Your task to perform on an android device: turn on data saver in the chrome app Image 0: 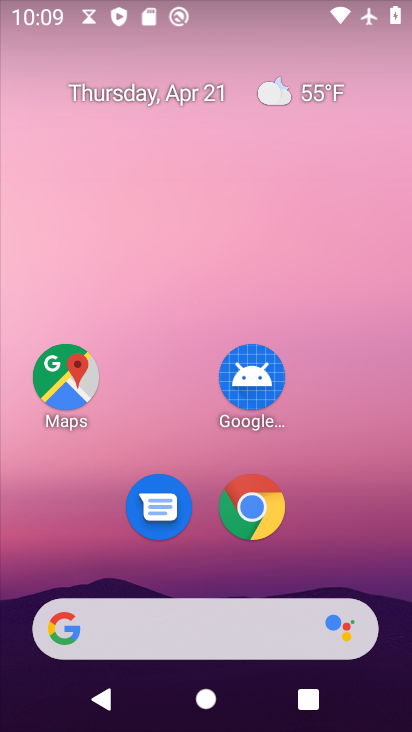
Step 0: drag from (299, 553) to (312, 269)
Your task to perform on an android device: turn on data saver in the chrome app Image 1: 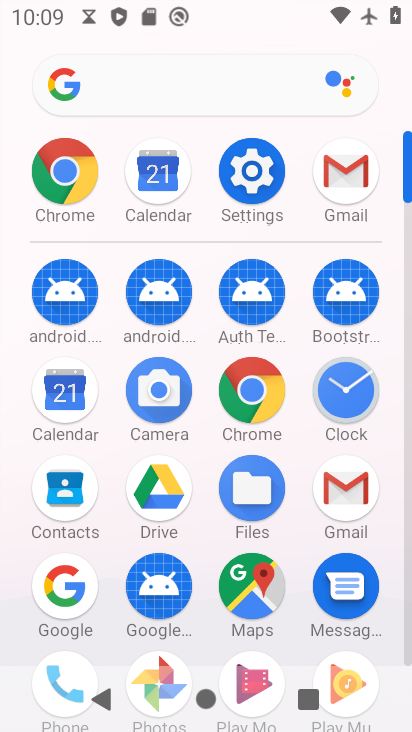
Step 1: click (254, 391)
Your task to perform on an android device: turn on data saver in the chrome app Image 2: 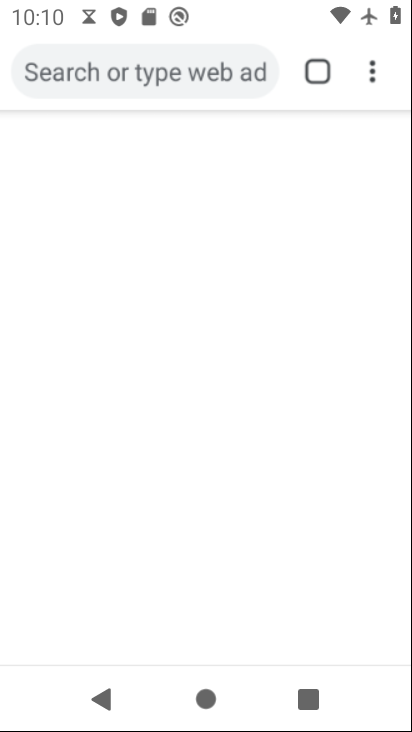
Step 2: click (364, 72)
Your task to perform on an android device: turn on data saver in the chrome app Image 3: 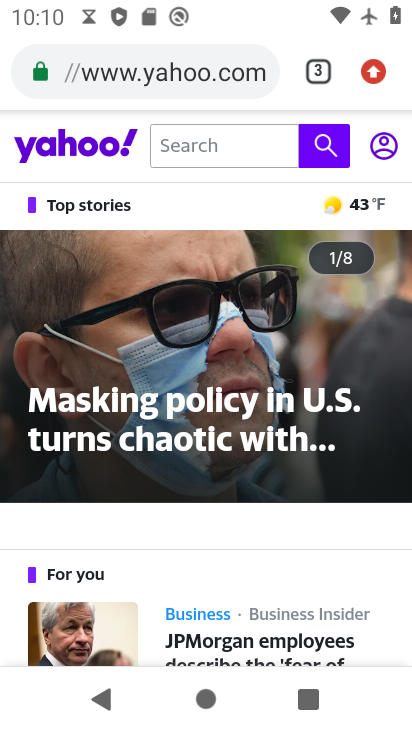
Step 3: click (365, 73)
Your task to perform on an android device: turn on data saver in the chrome app Image 4: 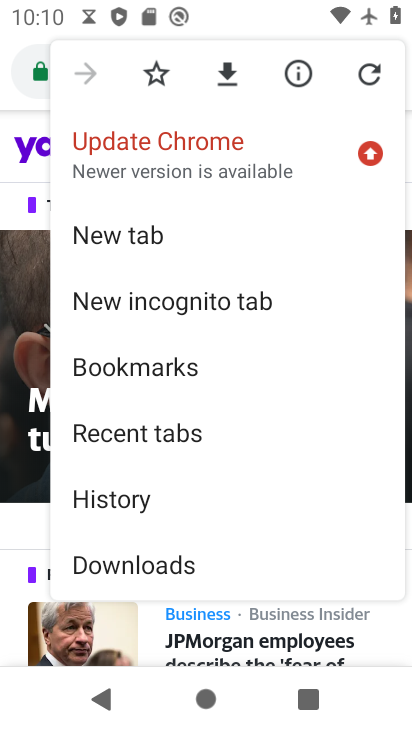
Step 4: drag from (234, 533) to (259, 210)
Your task to perform on an android device: turn on data saver in the chrome app Image 5: 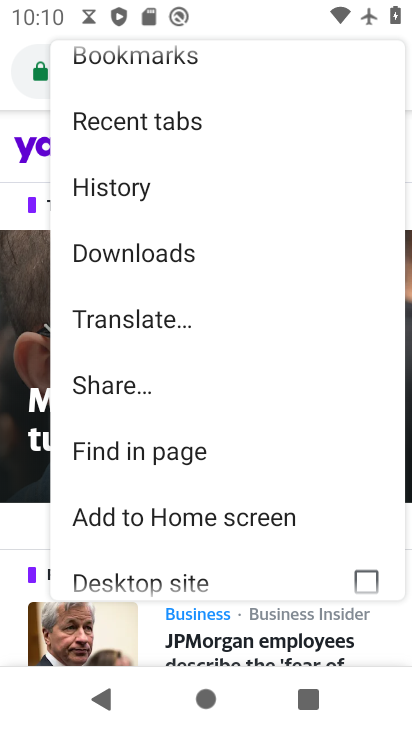
Step 5: drag from (212, 437) to (261, 134)
Your task to perform on an android device: turn on data saver in the chrome app Image 6: 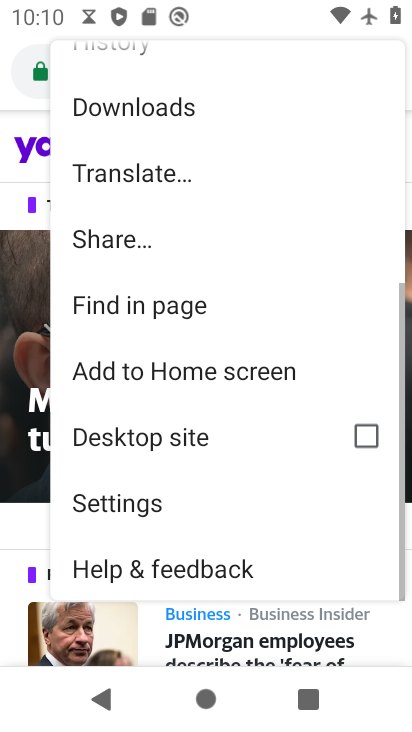
Step 6: click (145, 503)
Your task to perform on an android device: turn on data saver in the chrome app Image 7: 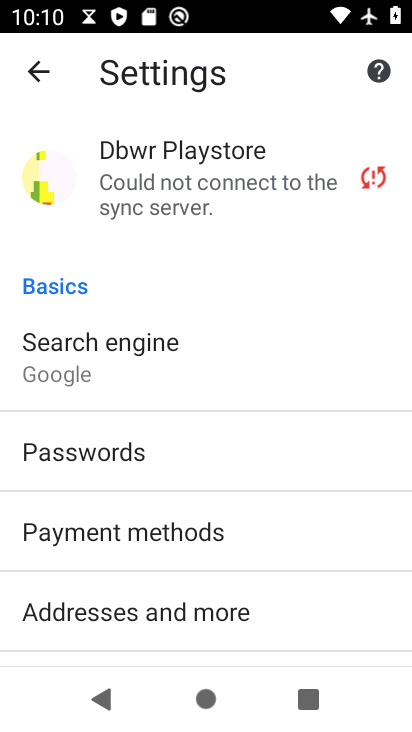
Step 7: drag from (195, 573) to (290, 226)
Your task to perform on an android device: turn on data saver in the chrome app Image 8: 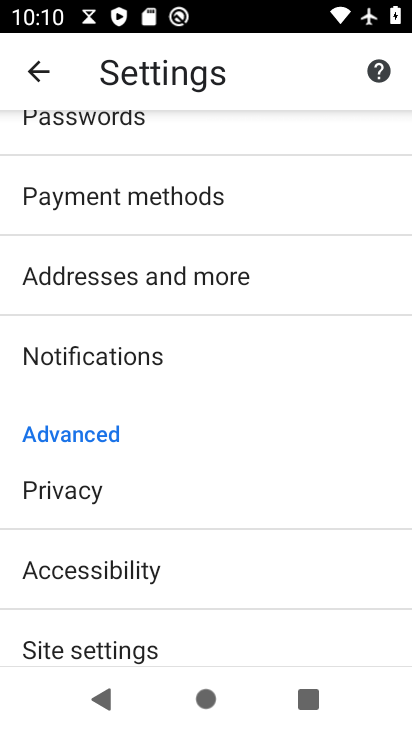
Step 8: drag from (159, 610) to (268, 188)
Your task to perform on an android device: turn on data saver in the chrome app Image 9: 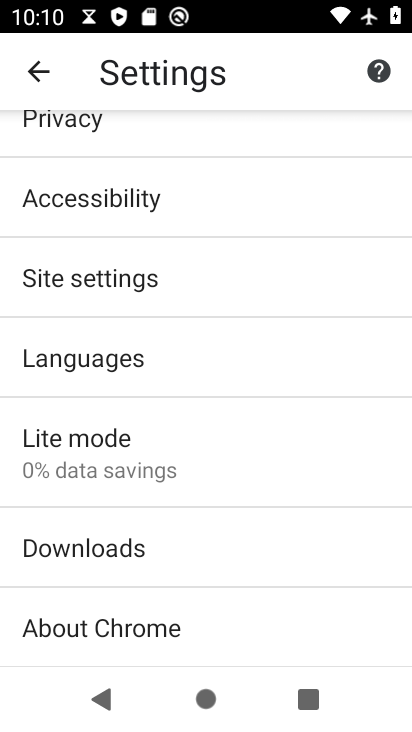
Step 9: click (148, 451)
Your task to perform on an android device: turn on data saver in the chrome app Image 10: 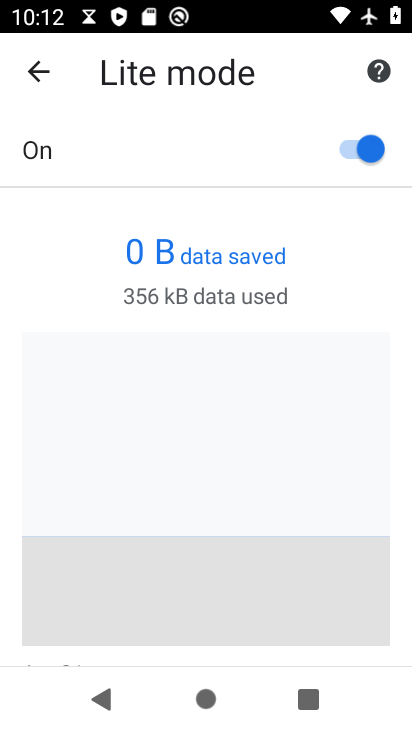
Step 10: task complete